Your task to perform on an android device: Go to sound settings Image 0: 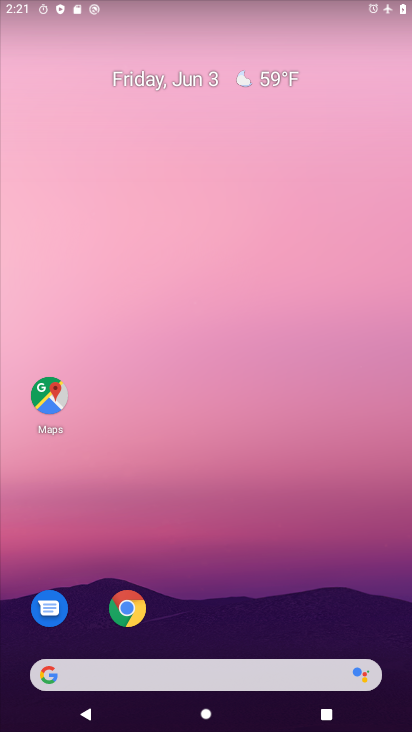
Step 0: drag from (190, 663) to (260, 216)
Your task to perform on an android device: Go to sound settings Image 1: 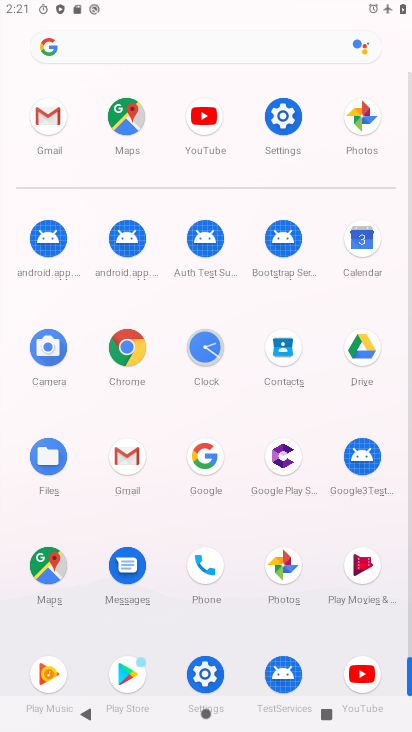
Step 1: click (273, 128)
Your task to perform on an android device: Go to sound settings Image 2: 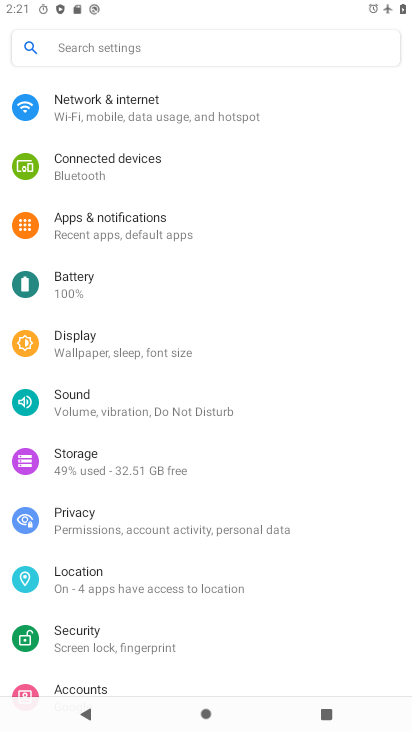
Step 2: click (166, 415)
Your task to perform on an android device: Go to sound settings Image 3: 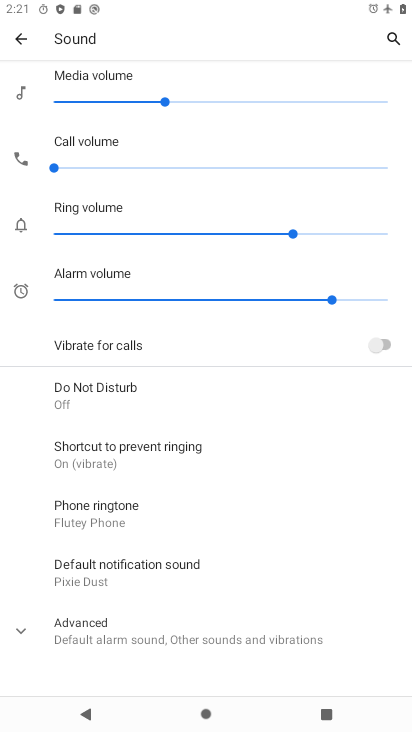
Step 3: task complete